Your task to perform on an android device: turn on the 24-hour format for clock Image 0: 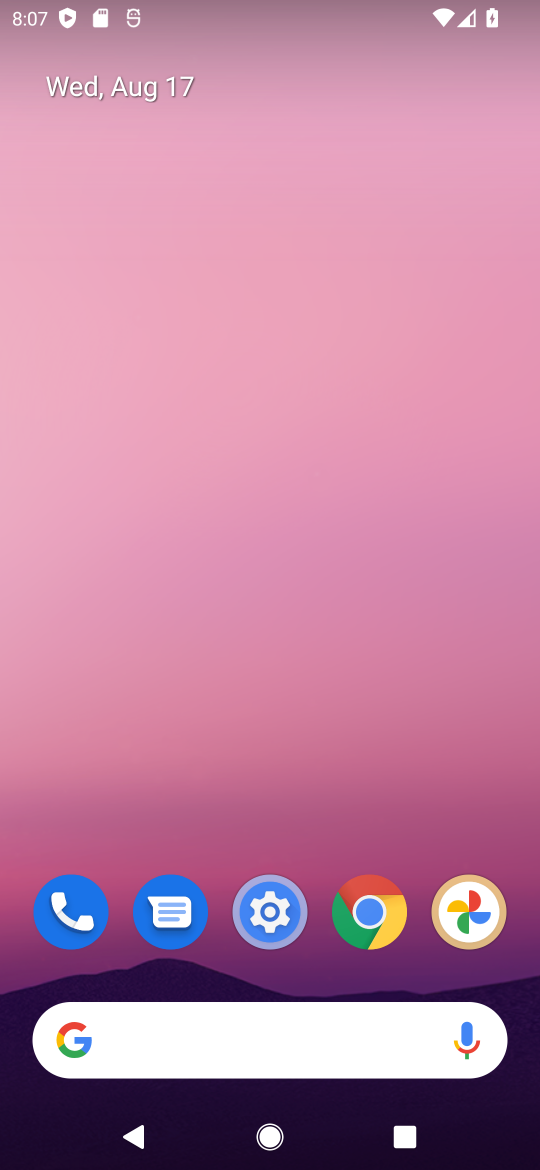
Step 0: drag from (229, 844) to (233, 359)
Your task to perform on an android device: turn on the 24-hour format for clock Image 1: 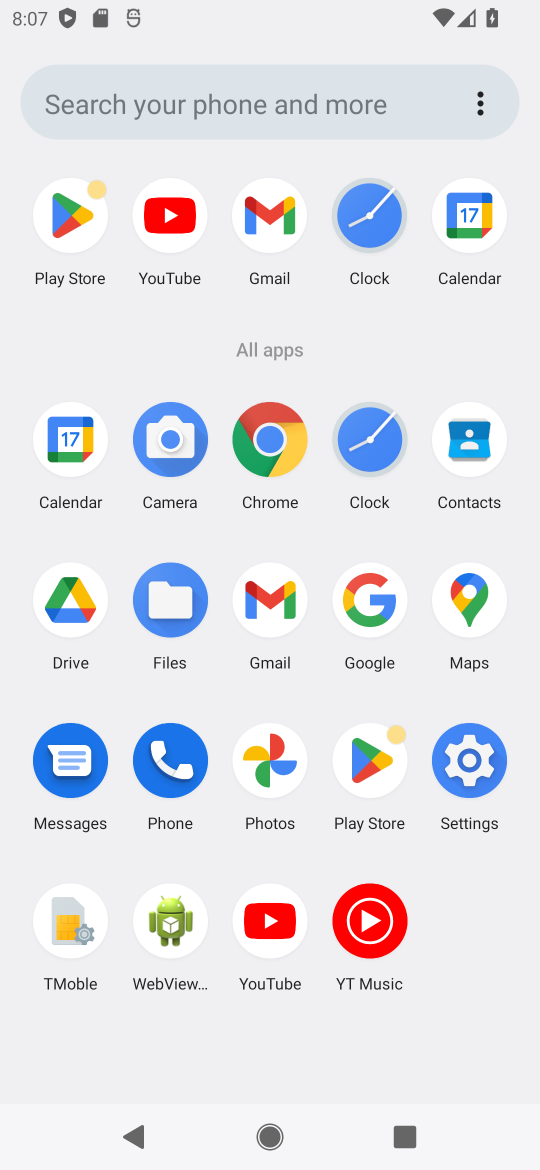
Step 1: click (367, 450)
Your task to perform on an android device: turn on the 24-hour format for clock Image 2: 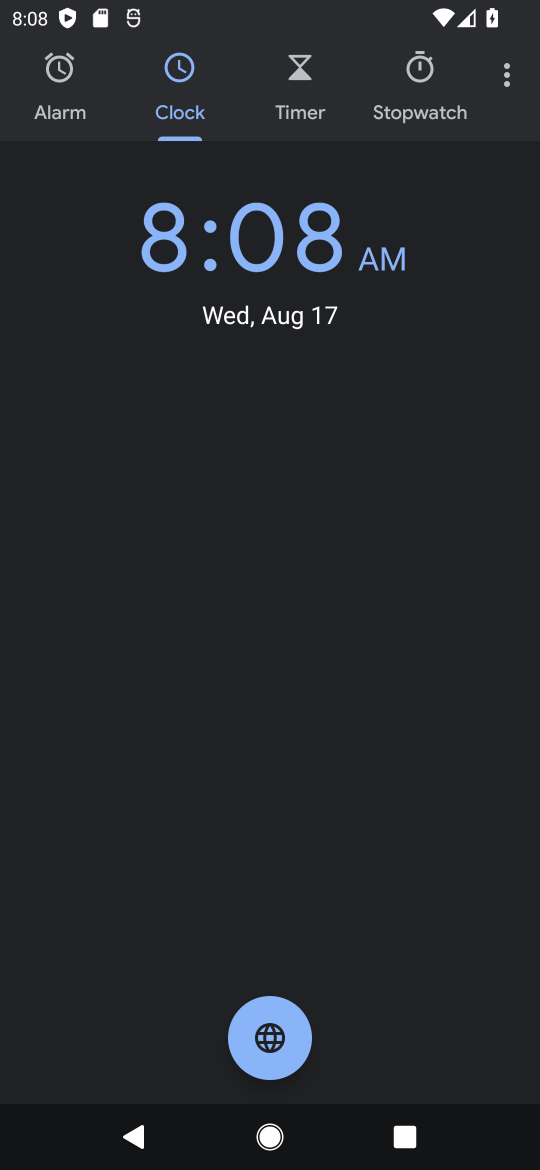
Step 2: click (501, 83)
Your task to perform on an android device: turn on the 24-hour format for clock Image 3: 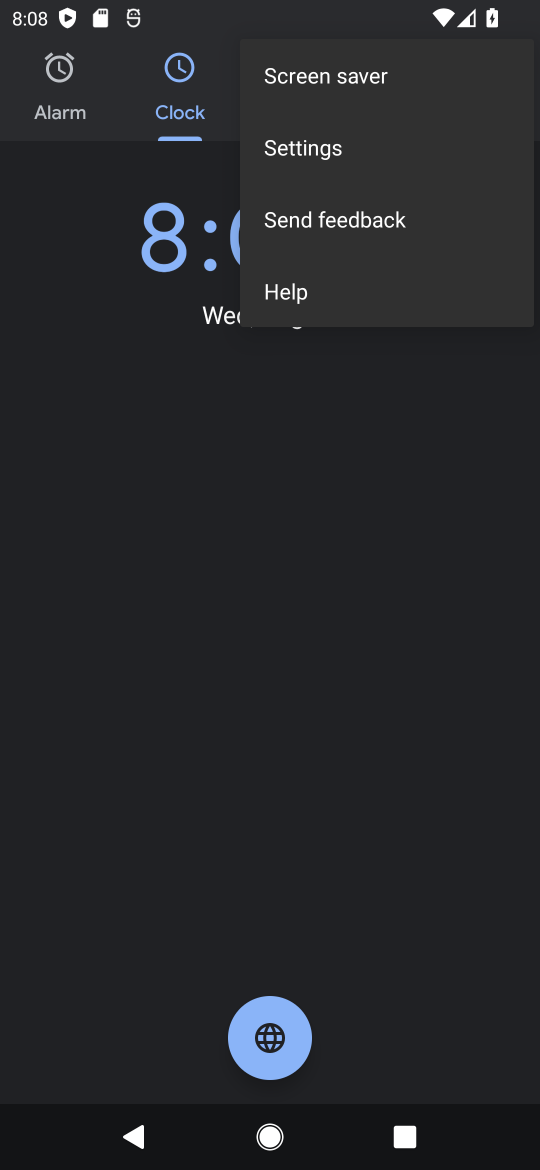
Step 3: click (281, 164)
Your task to perform on an android device: turn on the 24-hour format for clock Image 4: 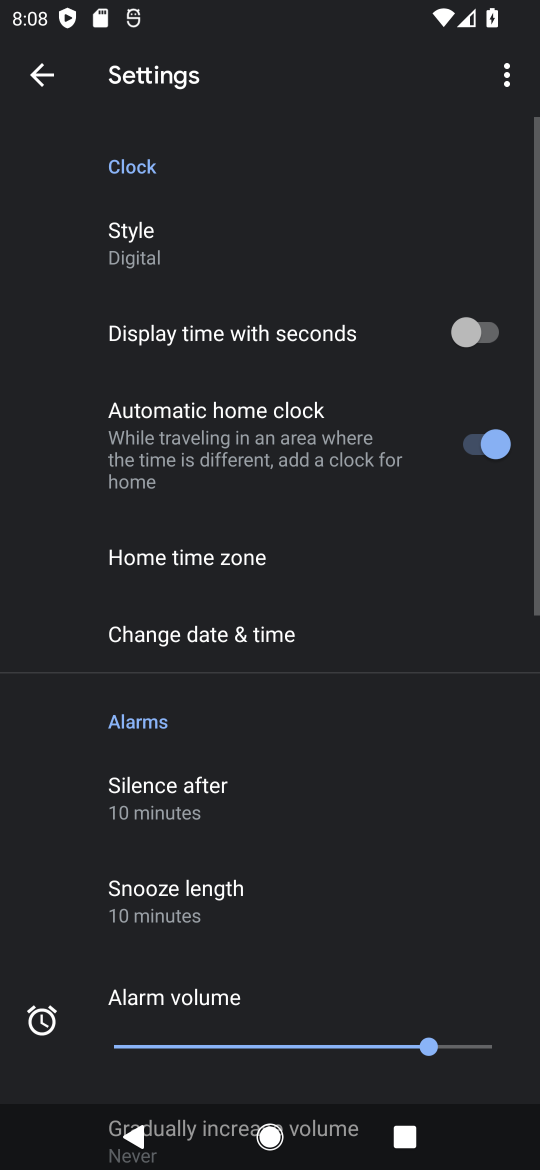
Step 4: click (179, 641)
Your task to perform on an android device: turn on the 24-hour format for clock Image 5: 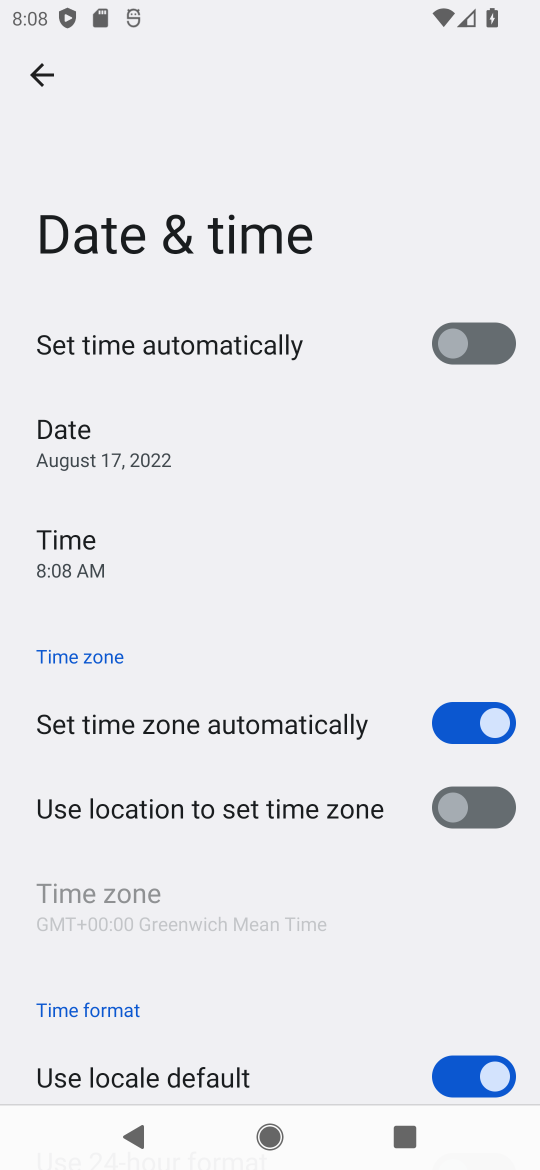
Step 5: drag from (195, 1043) to (107, 362)
Your task to perform on an android device: turn on the 24-hour format for clock Image 6: 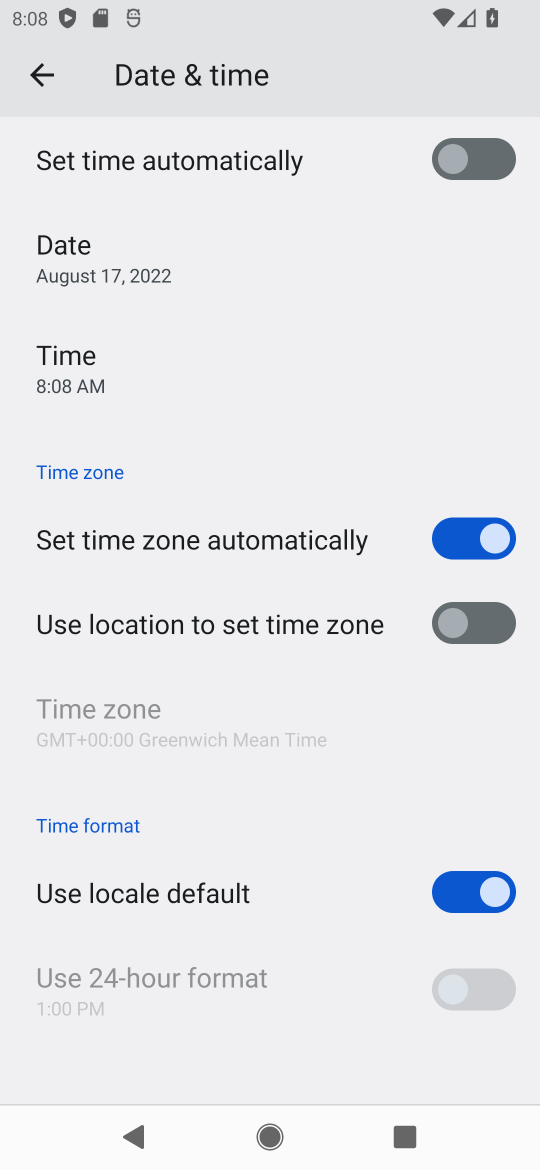
Step 6: click (459, 888)
Your task to perform on an android device: turn on the 24-hour format for clock Image 7: 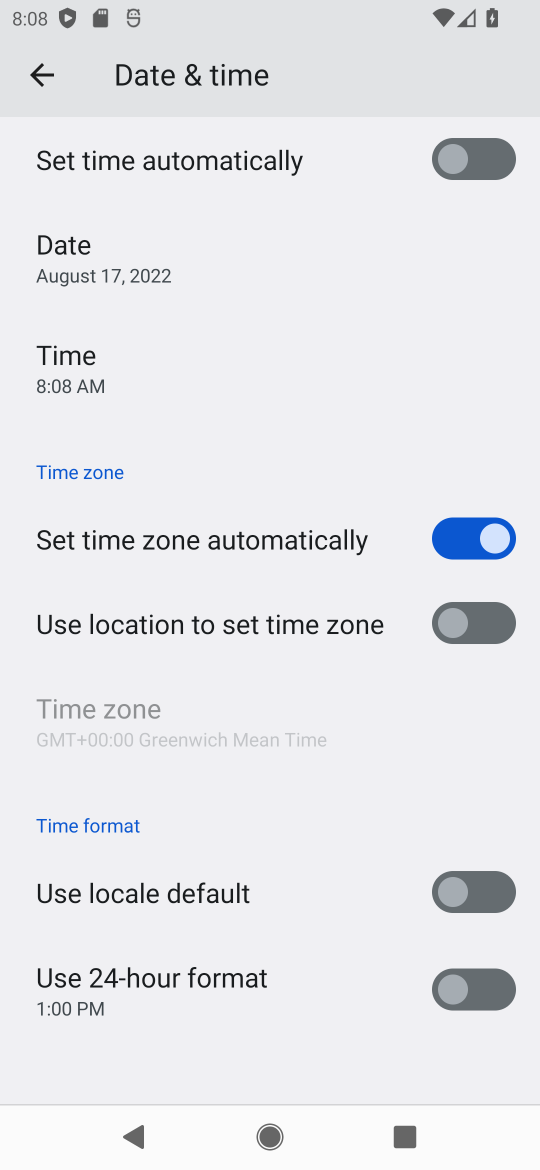
Step 7: click (474, 987)
Your task to perform on an android device: turn on the 24-hour format for clock Image 8: 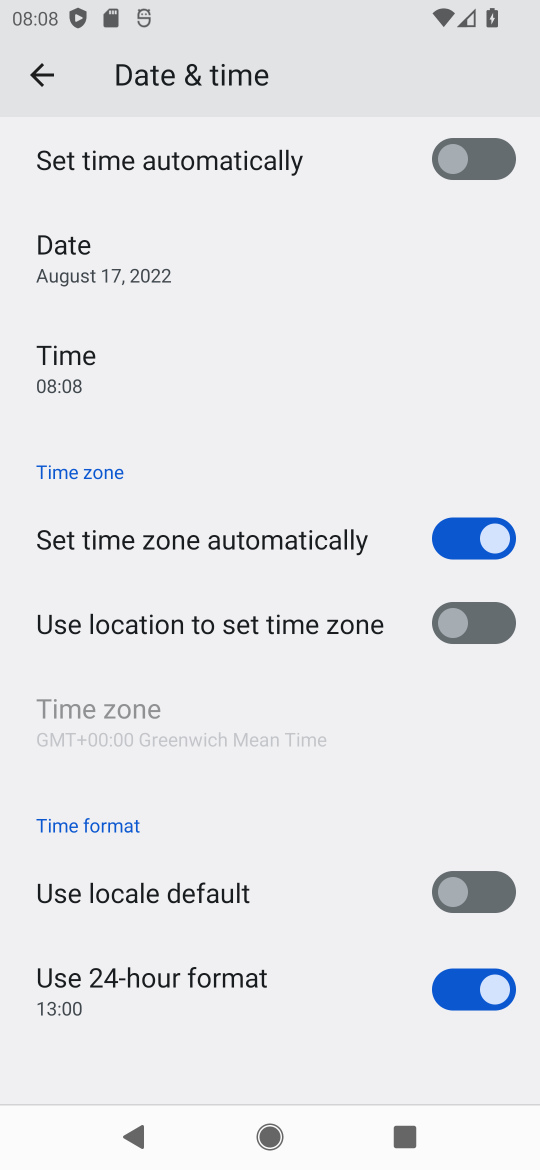
Step 8: task complete